Your task to perform on an android device: change the upload size in google photos Image 0: 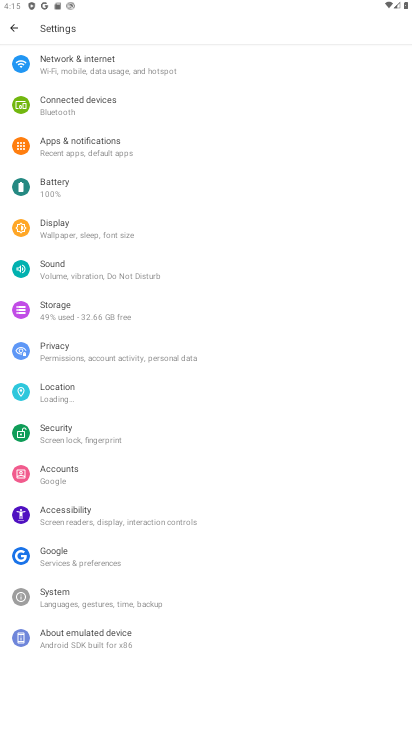
Step 0: press home button
Your task to perform on an android device: change the upload size in google photos Image 1: 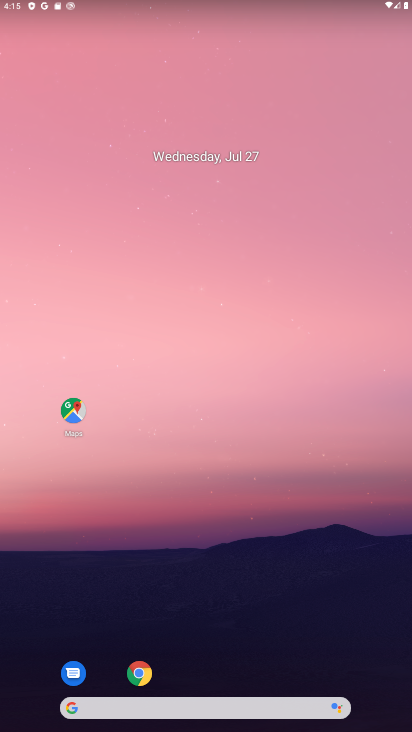
Step 1: drag from (378, 666) to (329, 135)
Your task to perform on an android device: change the upload size in google photos Image 2: 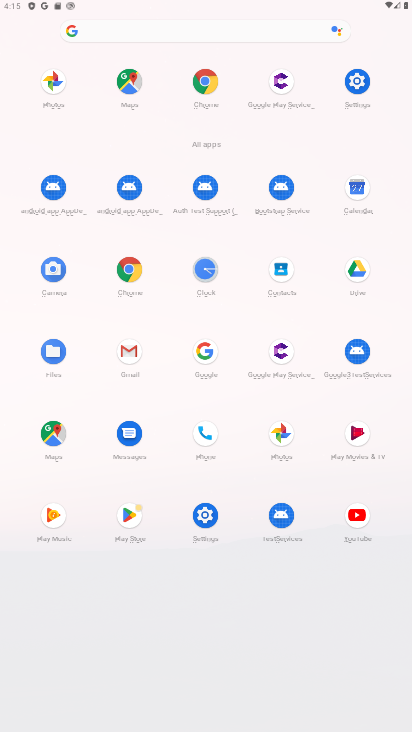
Step 2: click (282, 433)
Your task to perform on an android device: change the upload size in google photos Image 3: 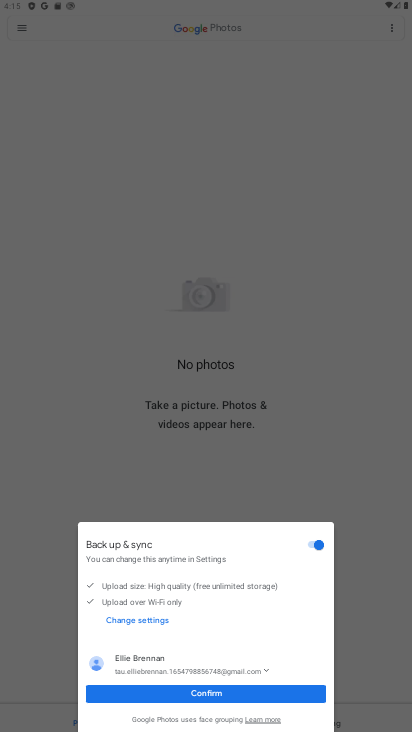
Step 3: click (199, 694)
Your task to perform on an android device: change the upload size in google photos Image 4: 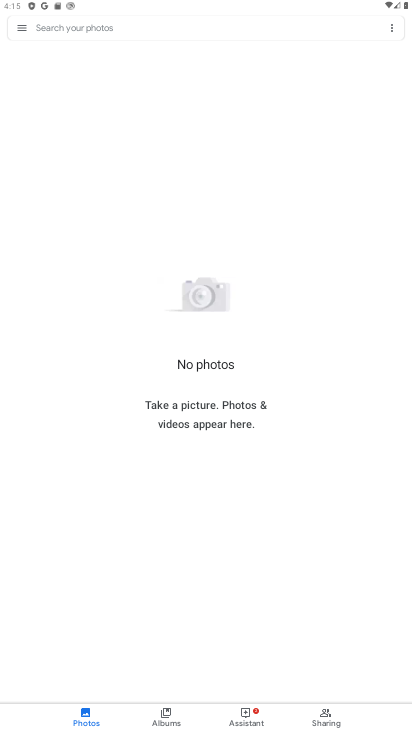
Step 4: click (22, 28)
Your task to perform on an android device: change the upload size in google photos Image 5: 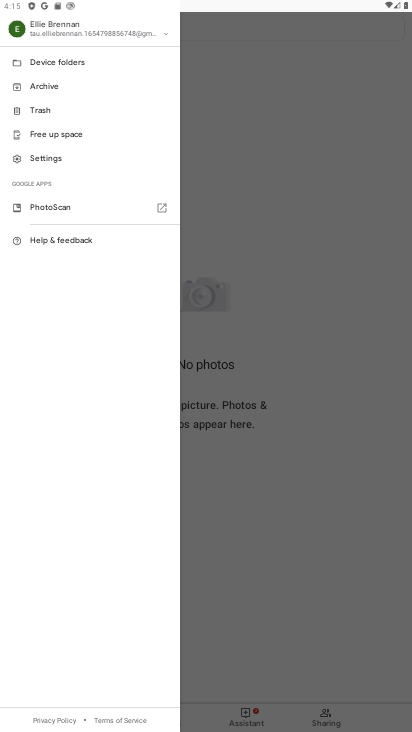
Step 5: click (44, 160)
Your task to perform on an android device: change the upload size in google photos Image 6: 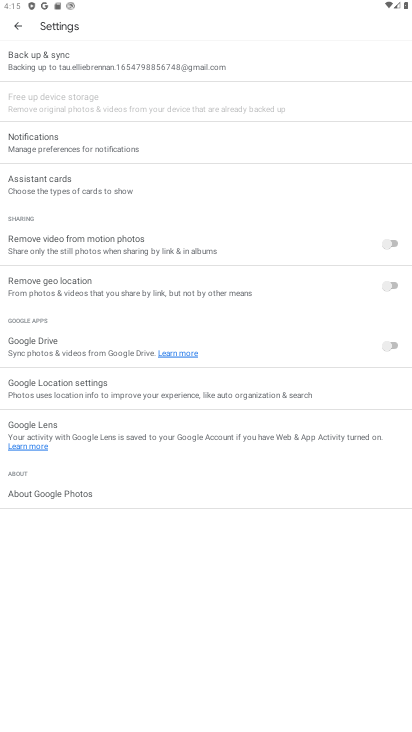
Step 6: click (76, 69)
Your task to perform on an android device: change the upload size in google photos Image 7: 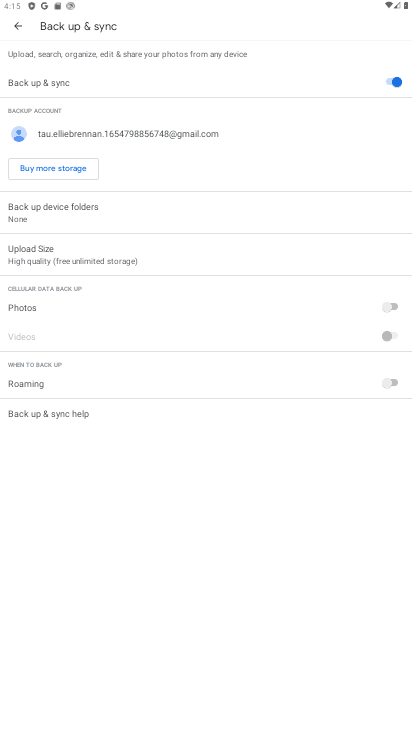
Step 7: click (50, 248)
Your task to perform on an android device: change the upload size in google photos Image 8: 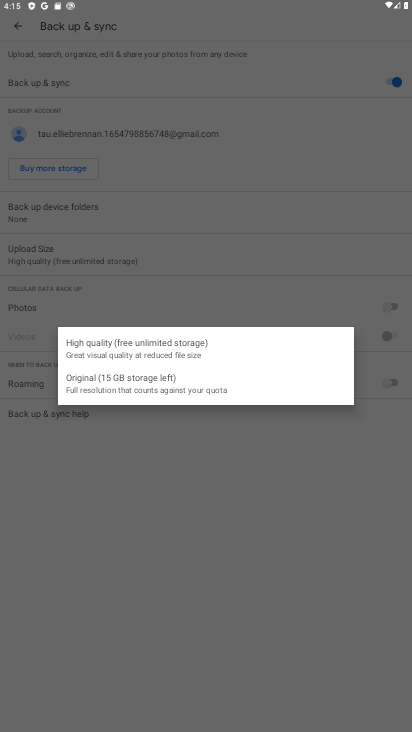
Step 8: click (134, 388)
Your task to perform on an android device: change the upload size in google photos Image 9: 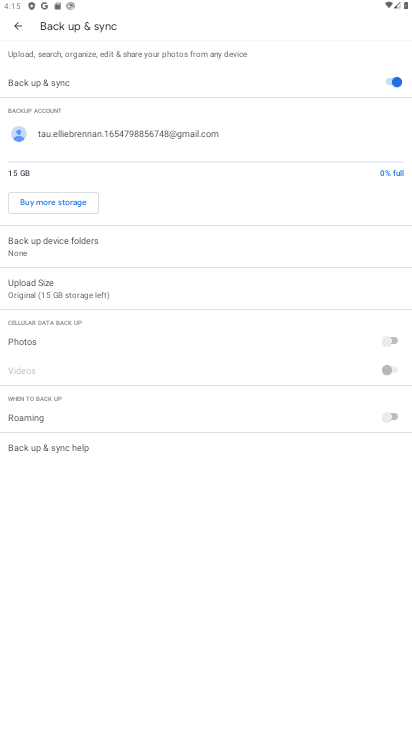
Step 9: task complete